Your task to perform on an android device: Open Chrome and go to settings Image 0: 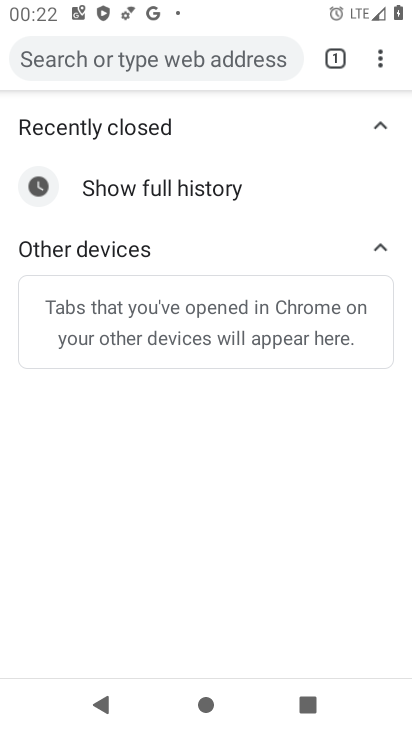
Step 0: press home button
Your task to perform on an android device: Open Chrome and go to settings Image 1: 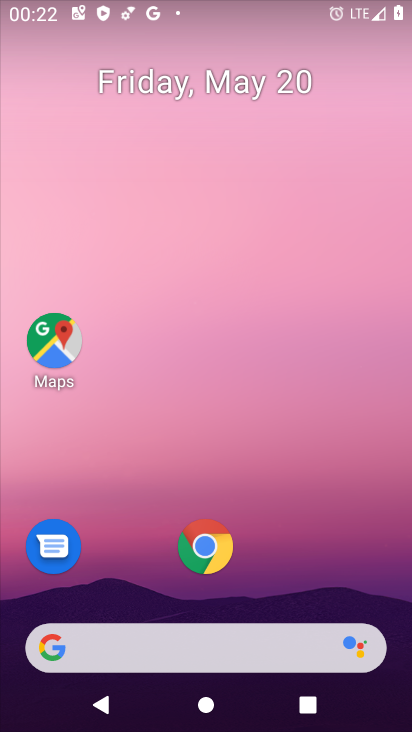
Step 1: click (206, 547)
Your task to perform on an android device: Open Chrome and go to settings Image 2: 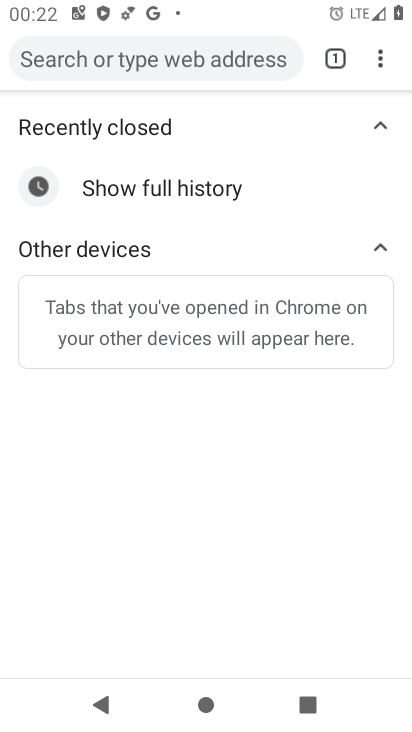
Step 2: click (383, 56)
Your task to perform on an android device: Open Chrome and go to settings Image 3: 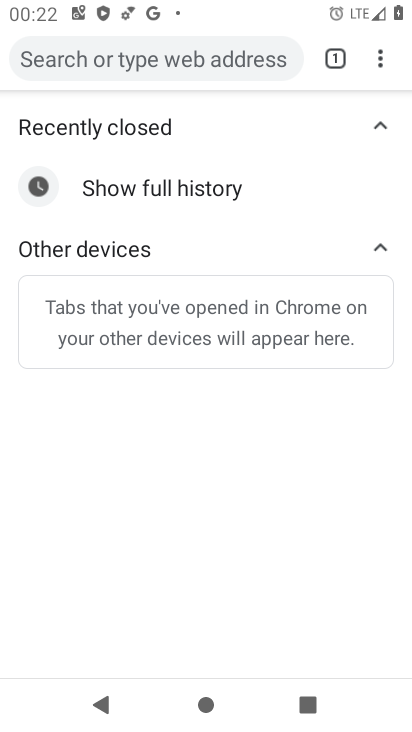
Step 3: task complete